Your task to perform on an android device: manage bookmarks in the chrome app Image 0: 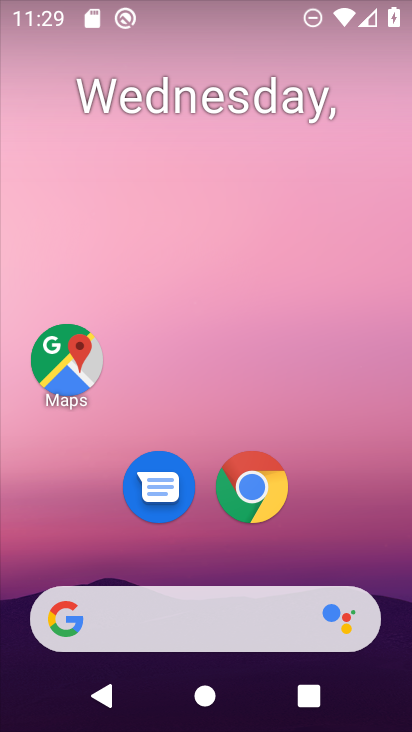
Step 0: click (248, 487)
Your task to perform on an android device: manage bookmarks in the chrome app Image 1: 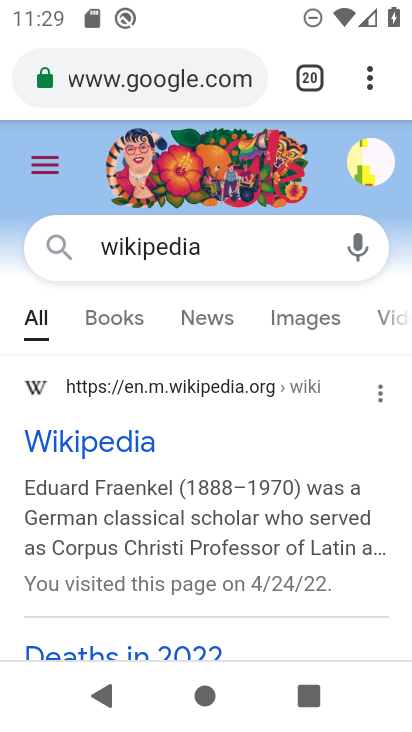
Step 1: click (371, 65)
Your task to perform on an android device: manage bookmarks in the chrome app Image 2: 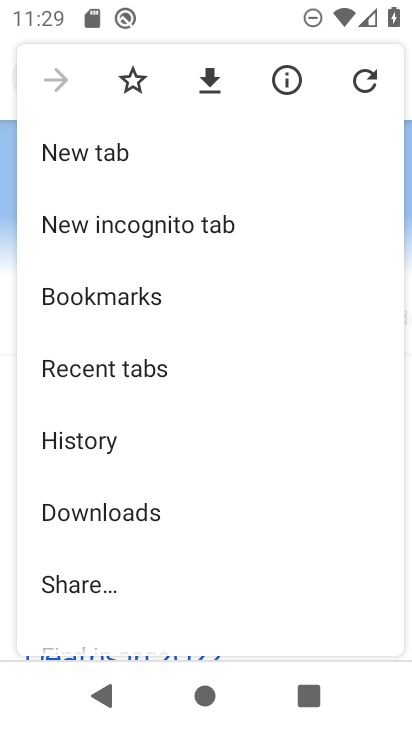
Step 2: click (116, 286)
Your task to perform on an android device: manage bookmarks in the chrome app Image 3: 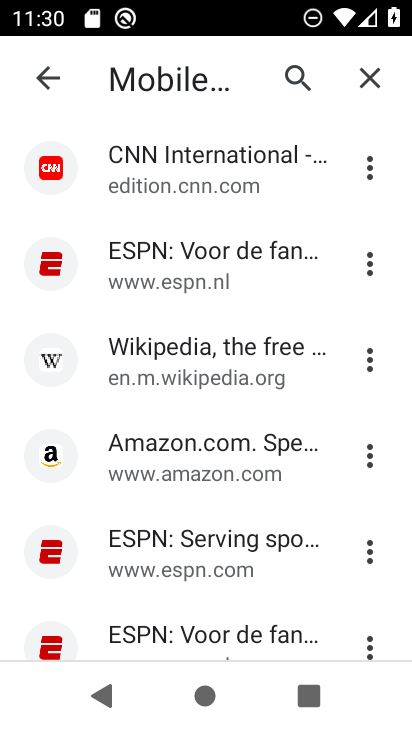
Step 3: click (364, 166)
Your task to perform on an android device: manage bookmarks in the chrome app Image 4: 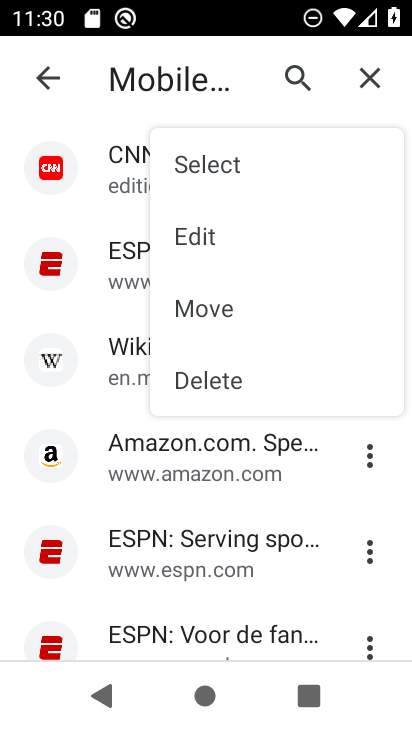
Step 4: click (199, 226)
Your task to perform on an android device: manage bookmarks in the chrome app Image 5: 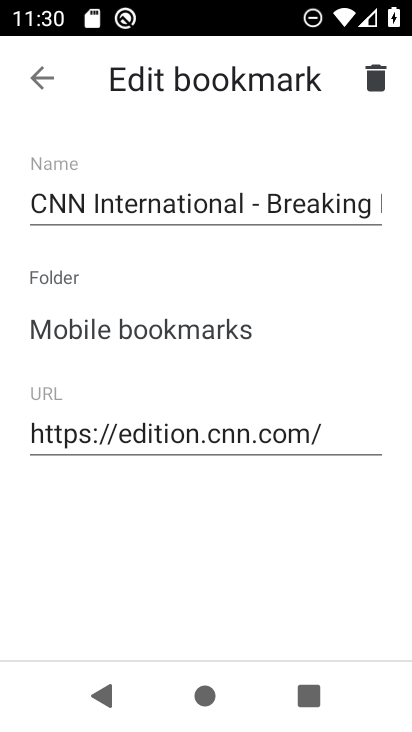
Step 5: task complete